Your task to perform on an android device: create a new album in the google photos Image 0: 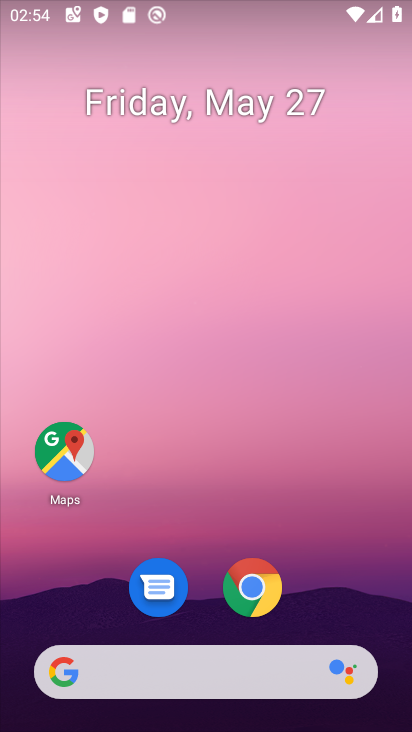
Step 0: press home button
Your task to perform on an android device: create a new album in the google photos Image 1: 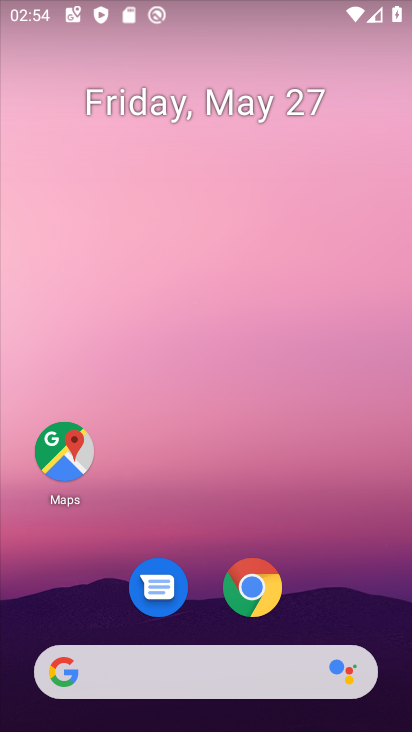
Step 1: drag from (327, 620) to (313, 268)
Your task to perform on an android device: create a new album in the google photos Image 2: 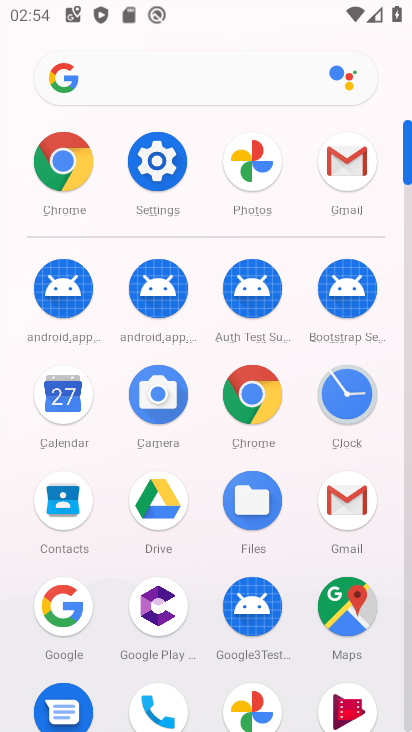
Step 2: click (258, 701)
Your task to perform on an android device: create a new album in the google photos Image 3: 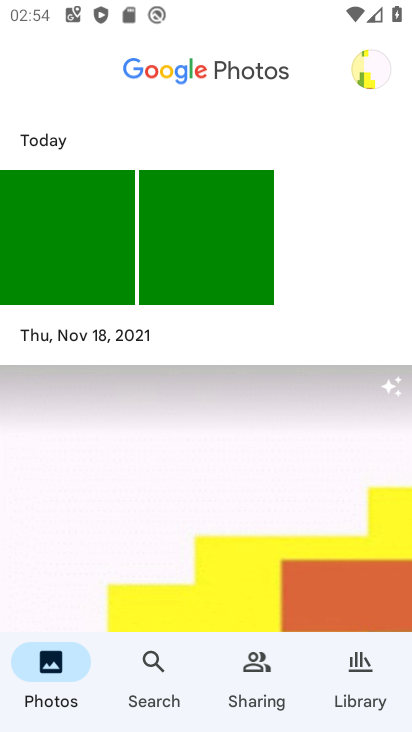
Step 3: drag from (363, 313) to (346, 36)
Your task to perform on an android device: create a new album in the google photos Image 4: 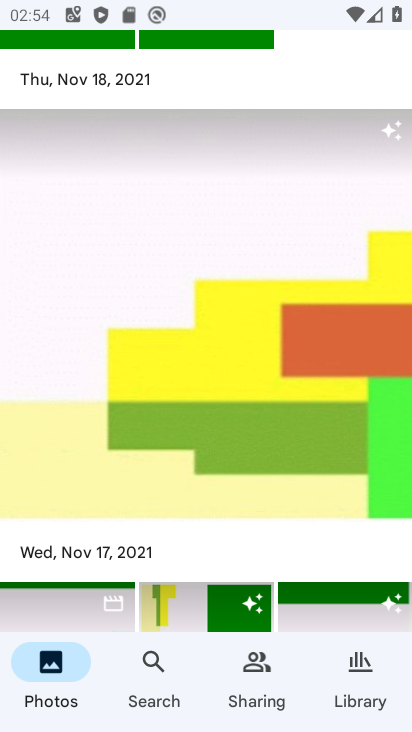
Step 4: drag from (216, 549) to (237, 245)
Your task to perform on an android device: create a new album in the google photos Image 5: 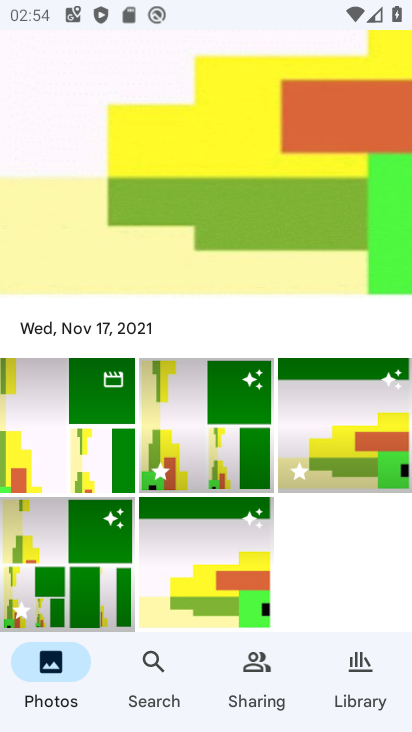
Step 5: click (91, 440)
Your task to perform on an android device: create a new album in the google photos Image 6: 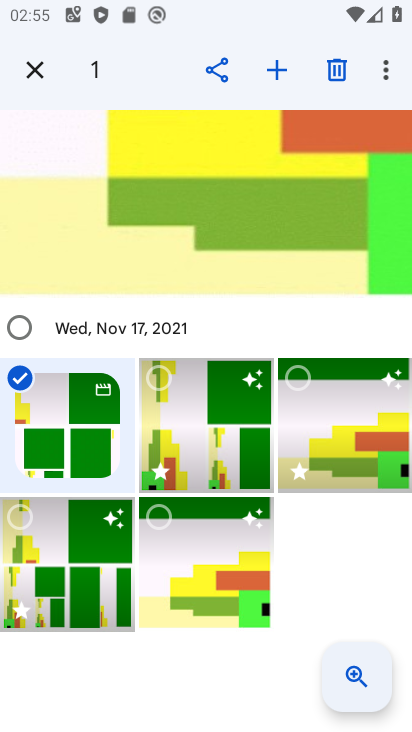
Step 6: click (181, 391)
Your task to perform on an android device: create a new album in the google photos Image 7: 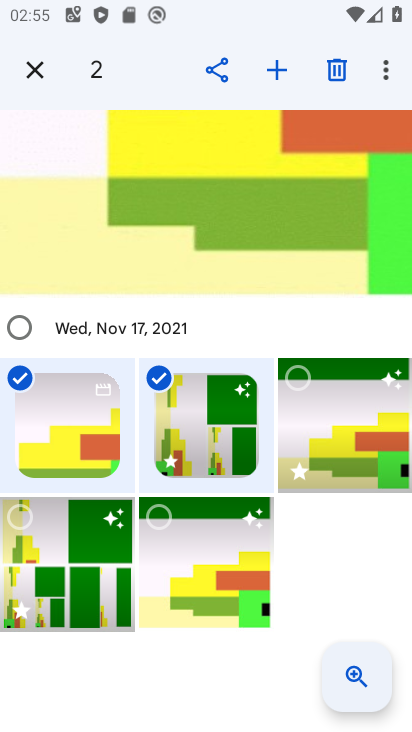
Step 7: click (284, 82)
Your task to perform on an android device: create a new album in the google photos Image 8: 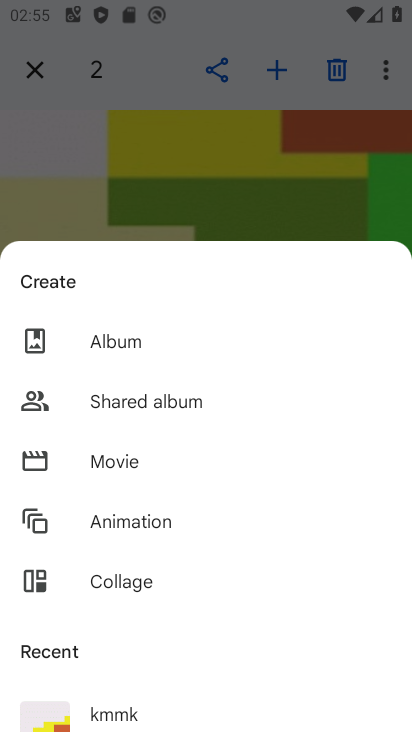
Step 8: click (120, 344)
Your task to perform on an android device: create a new album in the google photos Image 9: 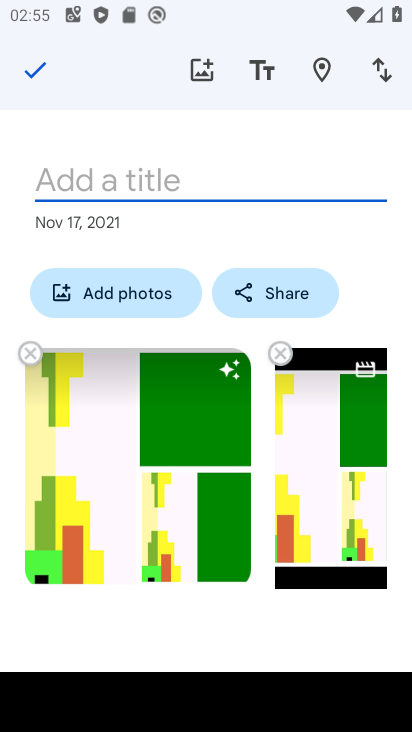
Step 9: type "hhhhhhh"
Your task to perform on an android device: create a new album in the google photos Image 10: 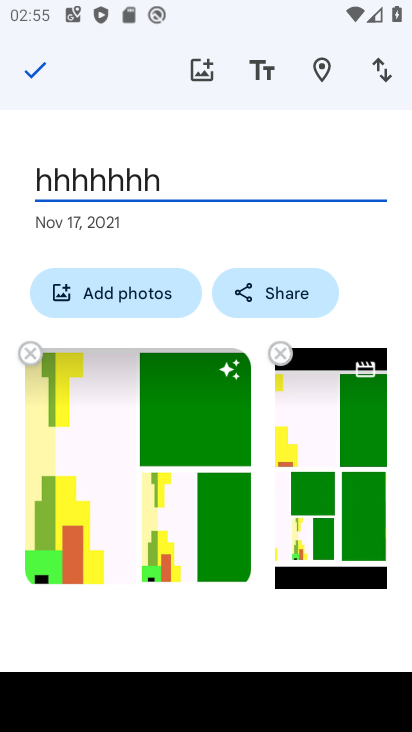
Step 10: click (38, 71)
Your task to perform on an android device: create a new album in the google photos Image 11: 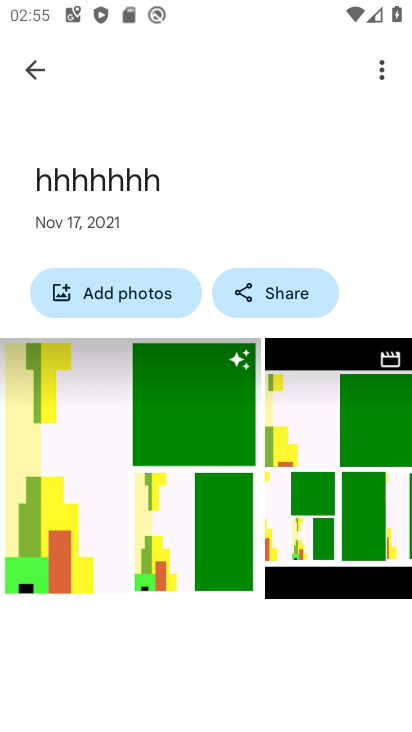
Step 11: task complete